Your task to perform on an android device: Go to accessibility settings Image 0: 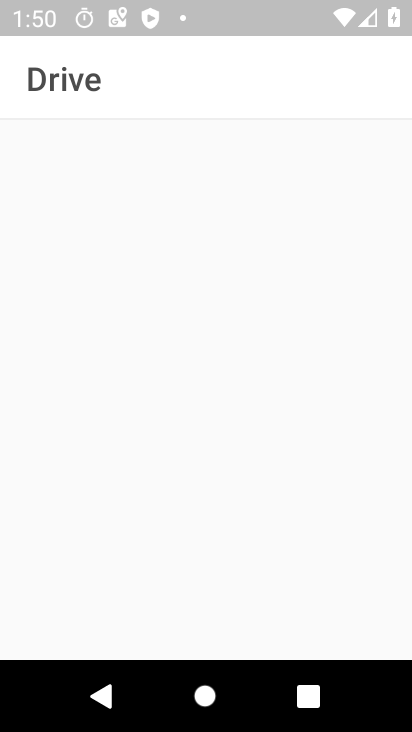
Step 0: press back button
Your task to perform on an android device: Go to accessibility settings Image 1: 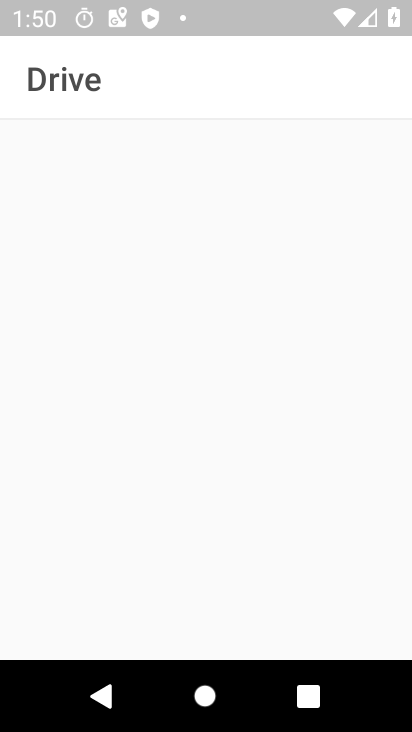
Step 1: press home button
Your task to perform on an android device: Go to accessibility settings Image 2: 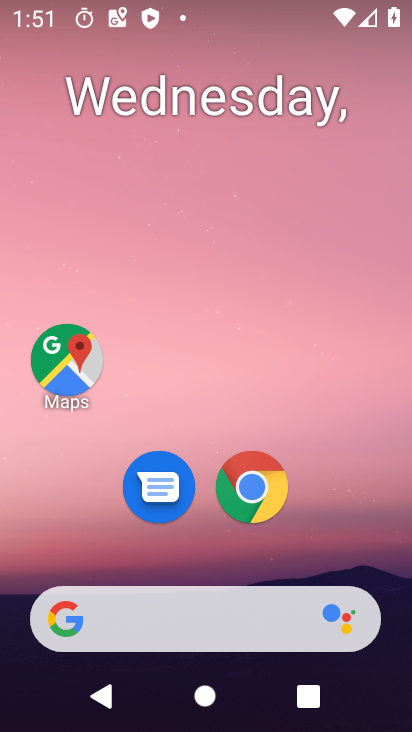
Step 2: drag from (165, 584) to (265, 121)
Your task to perform on an android device: Go to accessibility settings Image 3: 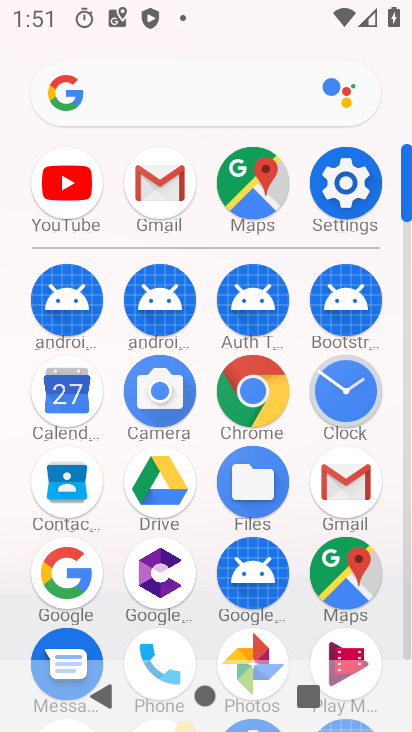
Step 3: click (321, 179)
Your task to perform on an android device: Go to accessibility settings Image 4: 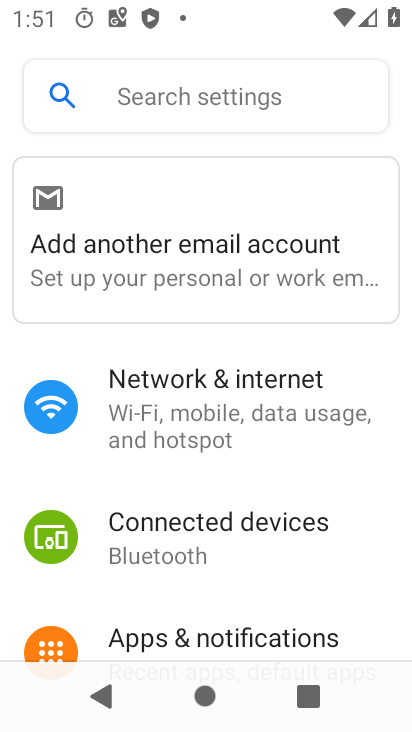
Step 4: drag from (196, 578) to (310, 10)
Your task to perform on an android device: Go to accessibility settings Image 5: 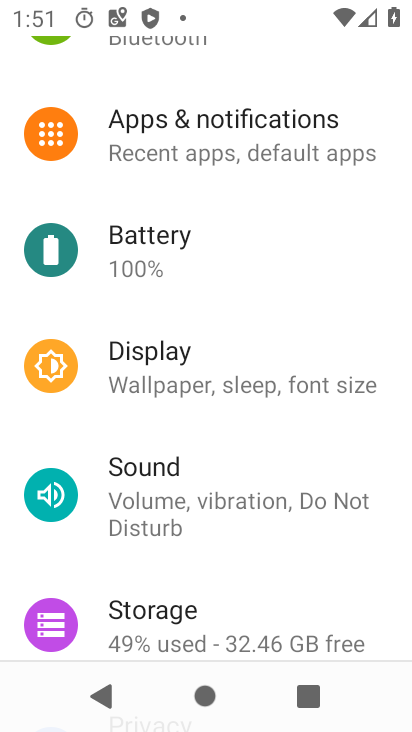
Step 5: drag from (197, 572) to (275, 49)
Your task to perform on an android device: Go to accessibility settings Image 6: 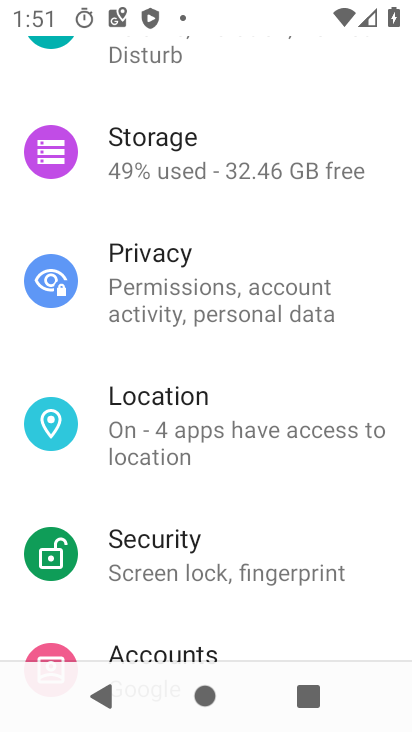
Step 6: drag from (194, 646) to (265, 50)
Your task to perform on an android device: Go to accessibility settings Image 7: 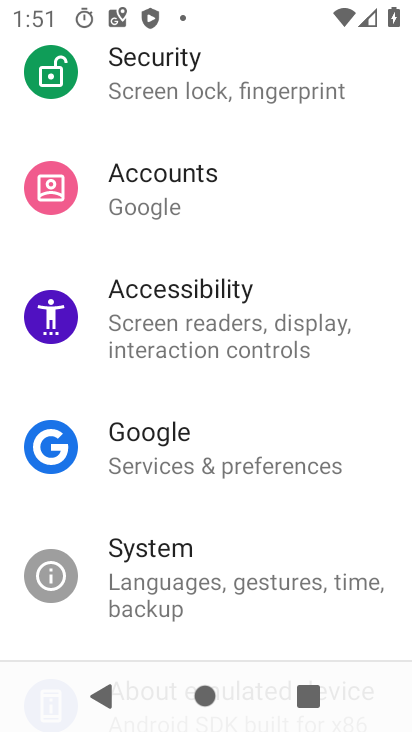
Step 7: click (170, 319)
Your task to perform on an android device: Go to accessibility settings Image 8: 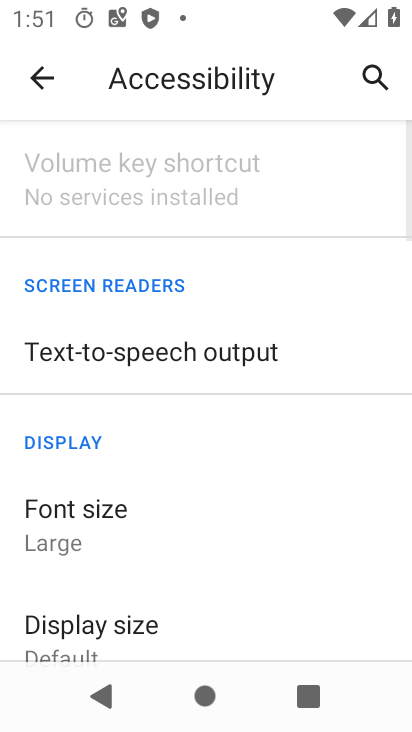
Step 8: task complete